Your task to perform on an android device: star an email in the gmail app Image 0: 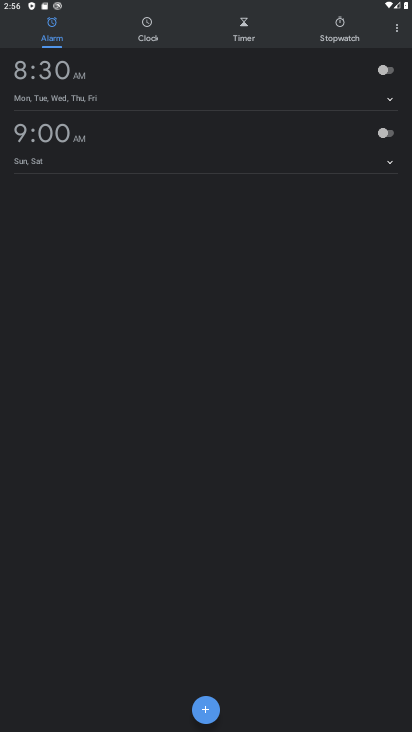
Step 0: press home button
Your task to perform on an android device: star an email in the gmail app Image 1: 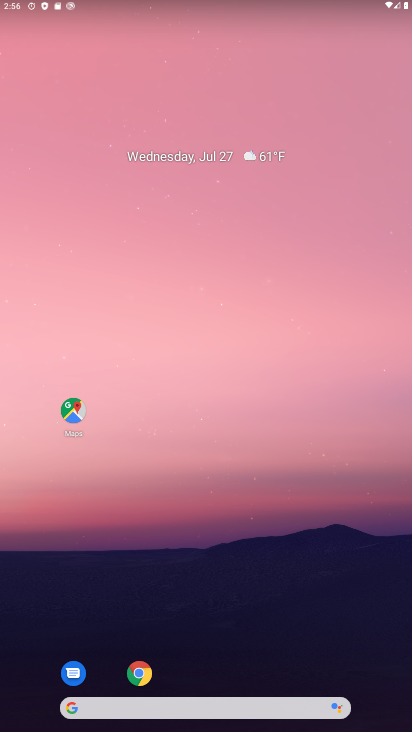
Step 1: drag from (18, 709) to (170, 120)
Your task to perform on an android device: star an email in the gmail app Image 2: 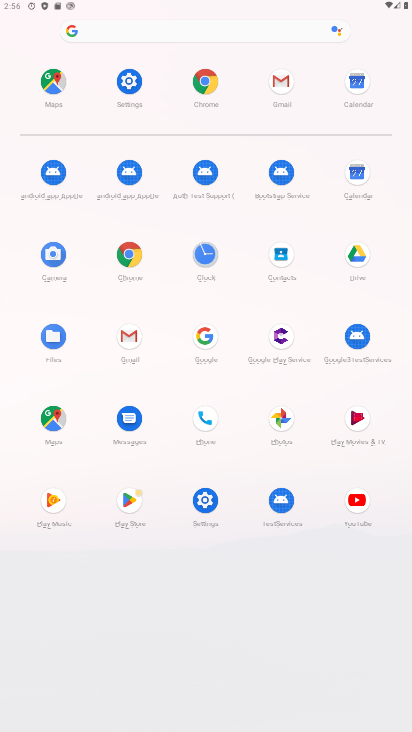
Step 2: click (125, 334)
Your task to perform on an android device: star an email in the gmail app Image 3: 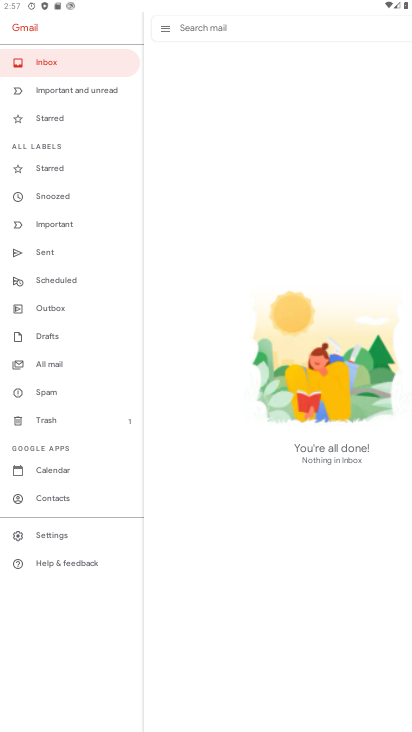
Step 3: click (57, 165)
Your task to perform on an android device: star an email in the gmail app Image 4: 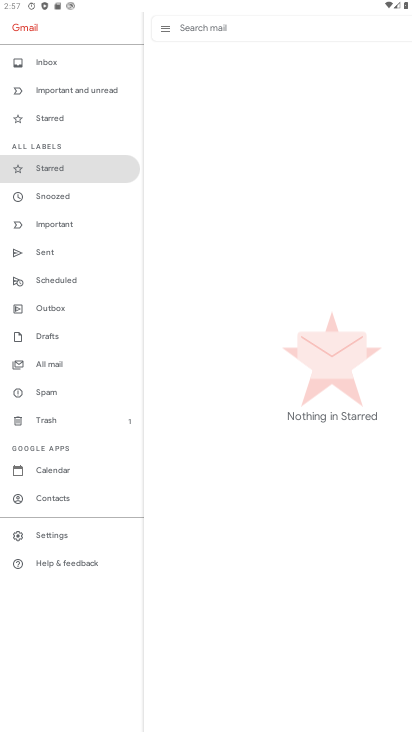
Step 4: click (61, 171)
Your task to perform on an android device: star an email in the gmail app Image 5: 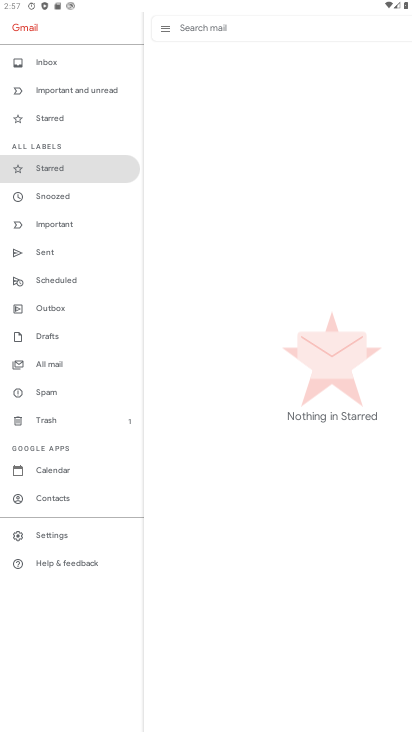
Step 5: task complete